Your task to perform on an android device: Do I have any events this weekend? Image 0: 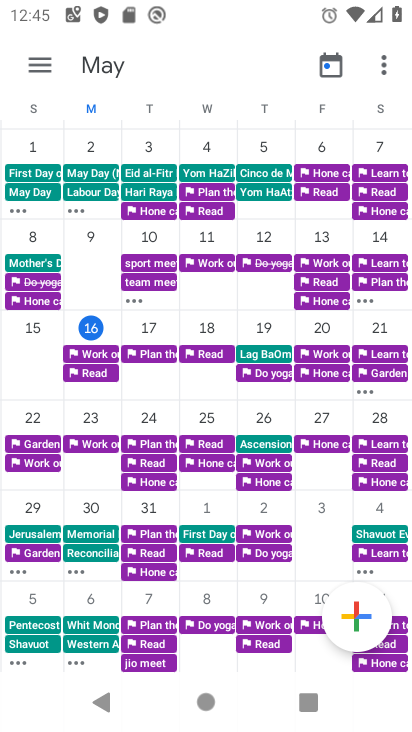
Step 0: click (254, 540)
Your task to perform on an android device: Do I have any events this weekend? Image 1: 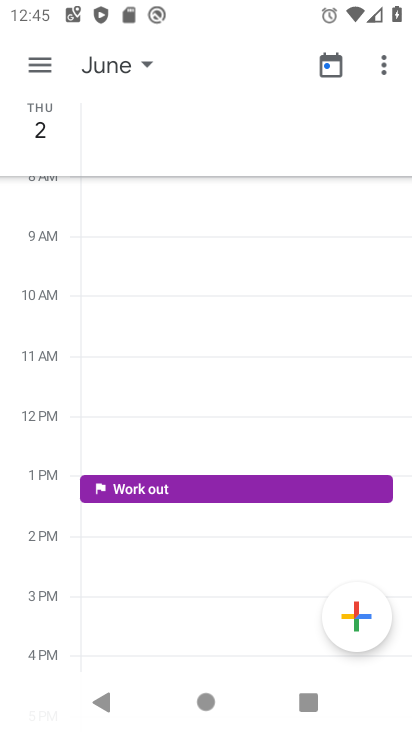
Step 1: click (42, 72)
Your task to perform on an android device: Do I have any events this weekend? Image 2: 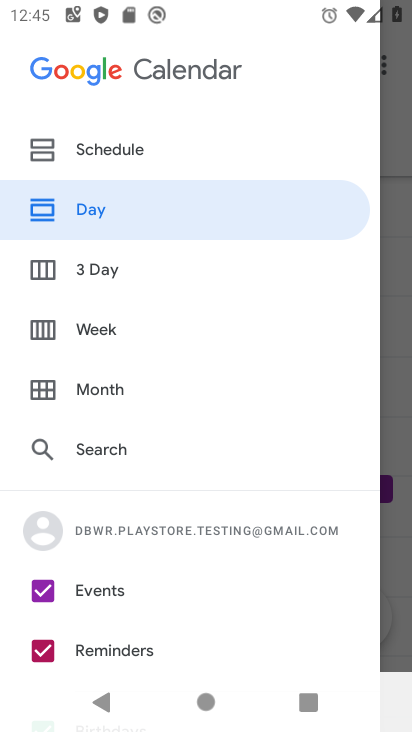
Step 2: click (146, 397)
Your task to perform on an android device: Do I have any events this weekend? Image 3: 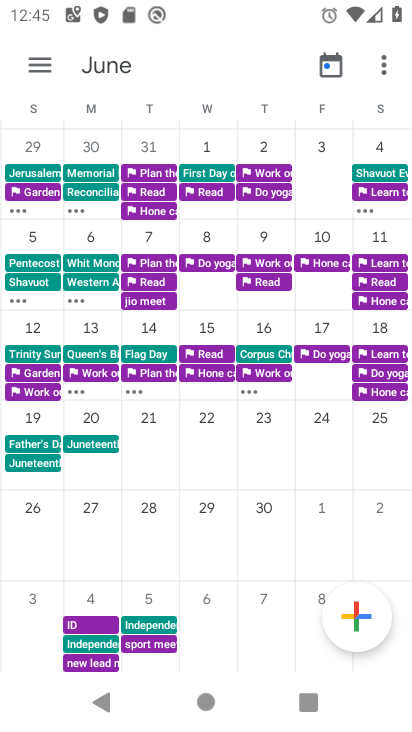
Step 3: task complete